Your task to perform on an android device: Open internet settings Image 0: 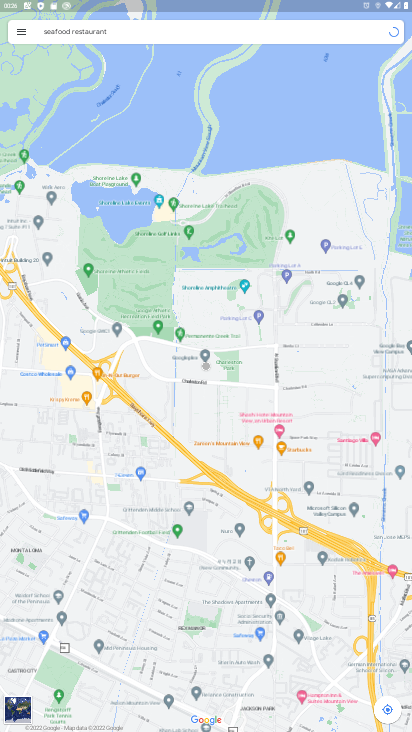
Step 0: press home button
Your task to perform on an android device: Open internet settings Image 1: 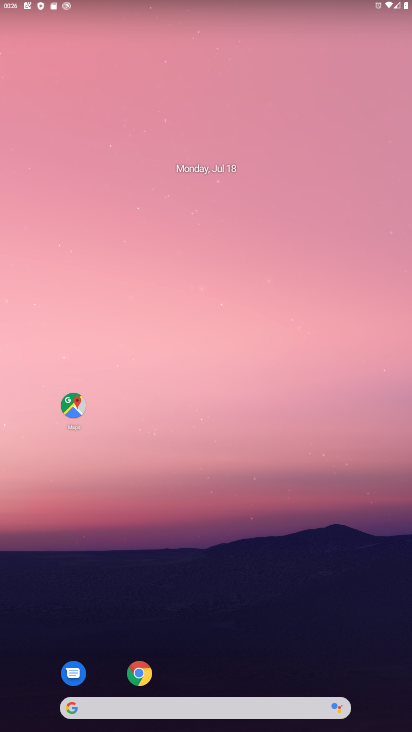
Step 1: drag from (244, 681) to (179, 97)
Your task to perform on an android device: Open internet settings Image 2: 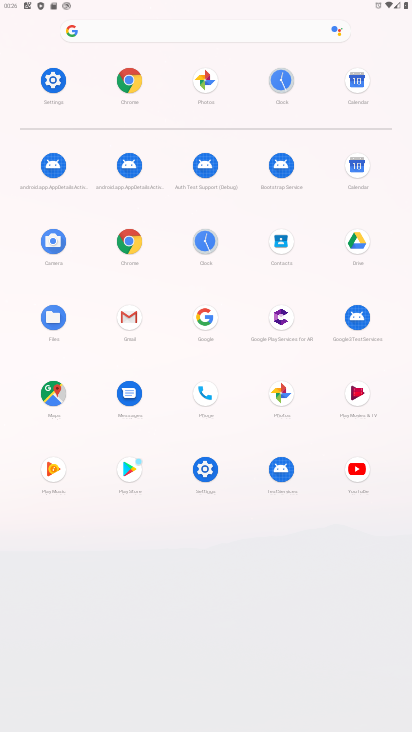
Step 2: click (200, 497)
Your task to perform on an android device: Open internet settings Image 3: 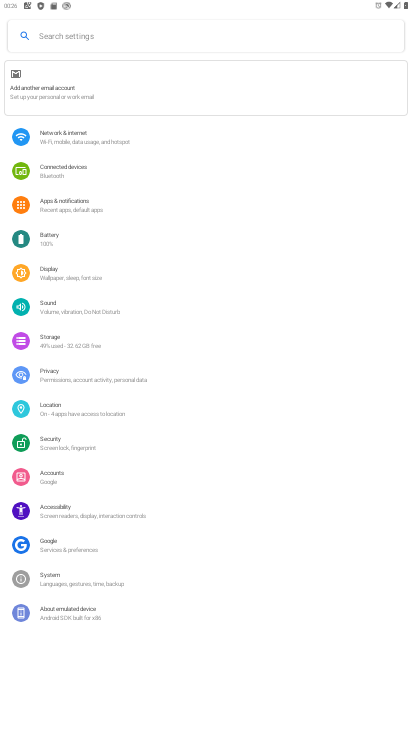
Step 3: click (153, 136)
Your task to perform on an android device: Open internet settings Image 4: 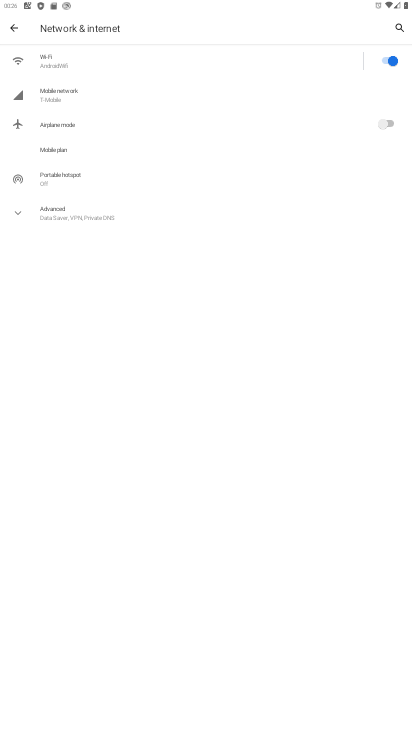
Step 4: task complete